Your task to perform on an android device: check data usage Image 0: 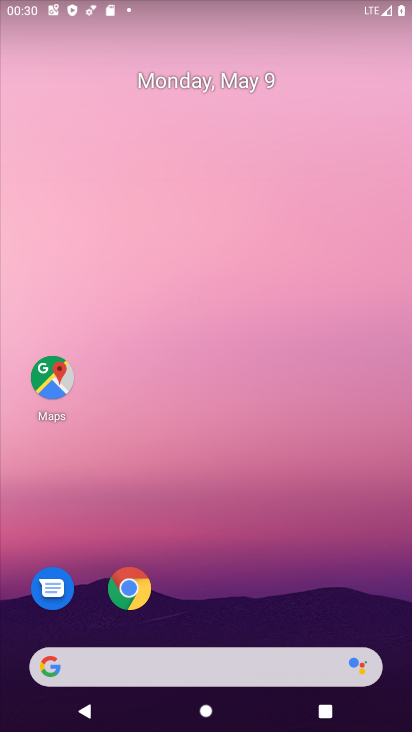
Step 0: drag from (222, 576) to (78, 54)
Your task to perform on an android device: check data usage Image 1: 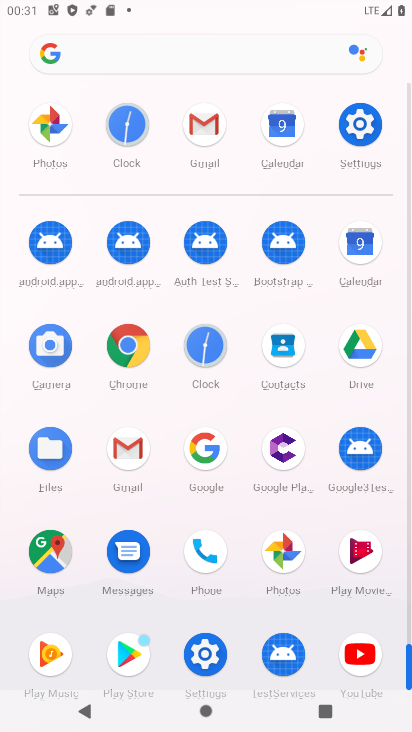
Step 1: click (359, 124)
Your task to perform on an android device: check data usage Image 2: 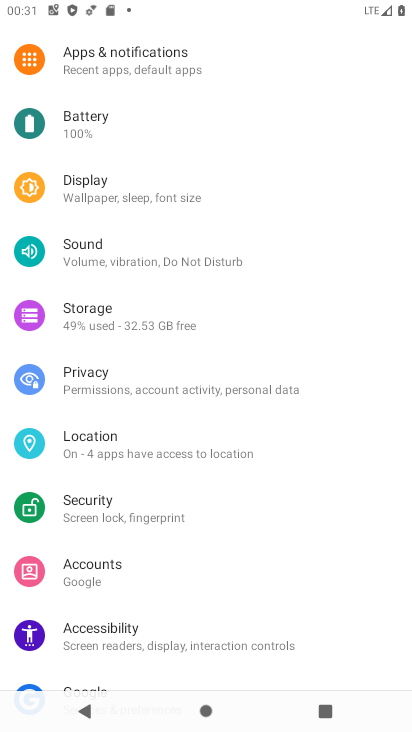
Step 2: drag from (182, 149) to (409, 700)
Your task to perform on an android device: check data usage Image 3: 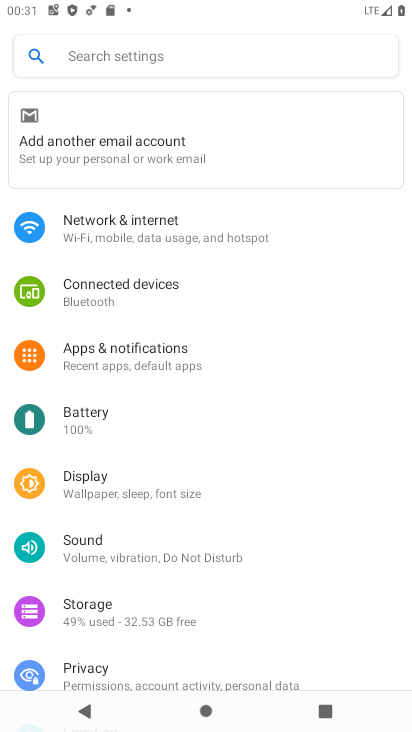
Step 3: click (140, 219)
Your task to perform on an android device: check data usage Image 4: 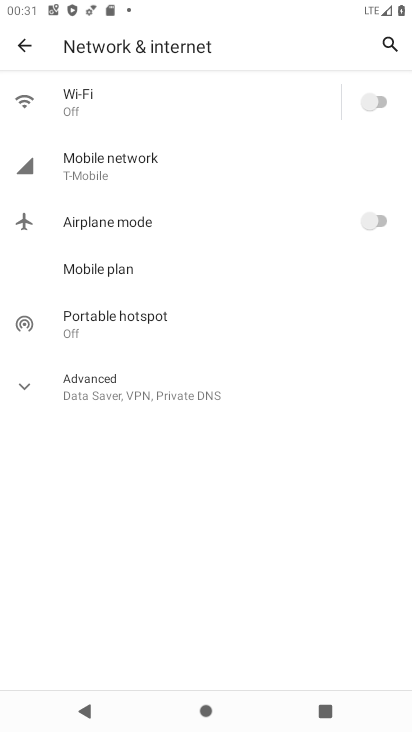
Step 4: click (103, 165)
Your task to perform on an android device: check data usage Image 5: 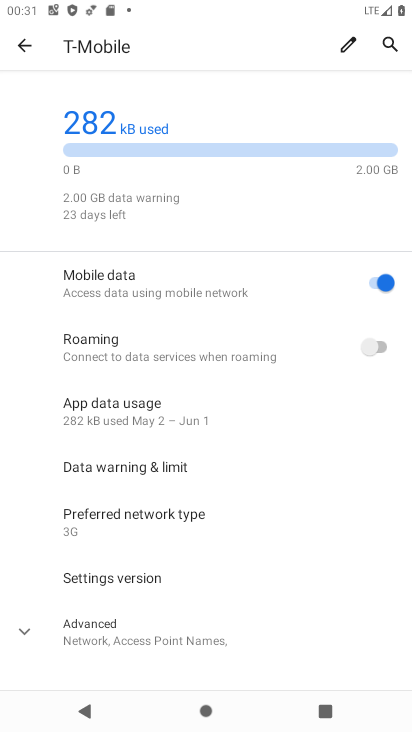
Step 5: task complete